Your task to perform on an android device: create a new album in the google photos Image 0: 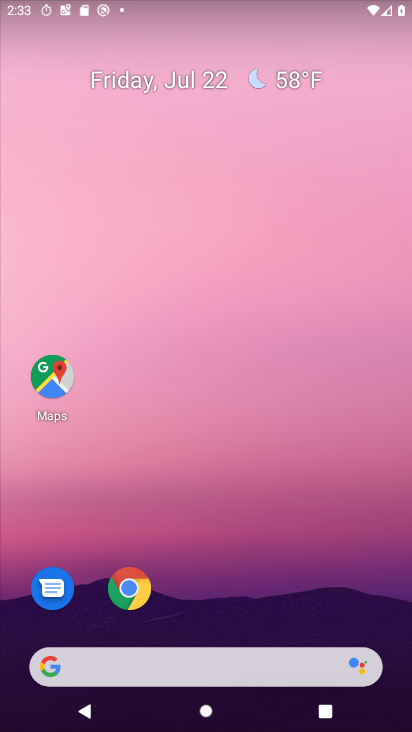
Step 0: drag from (165, 613) to (238, 10)
Your task to perform on an android device: create a new album in the google photos Image 1: 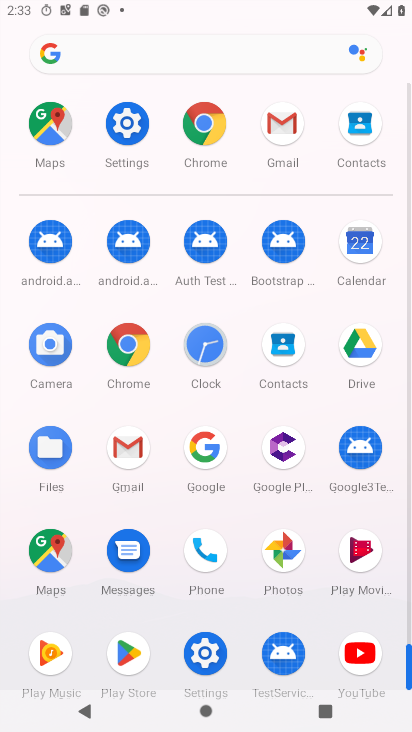
Step 1: click (287, 550)
Your task to perform on an android device: create a new album in the google photos Image 2: 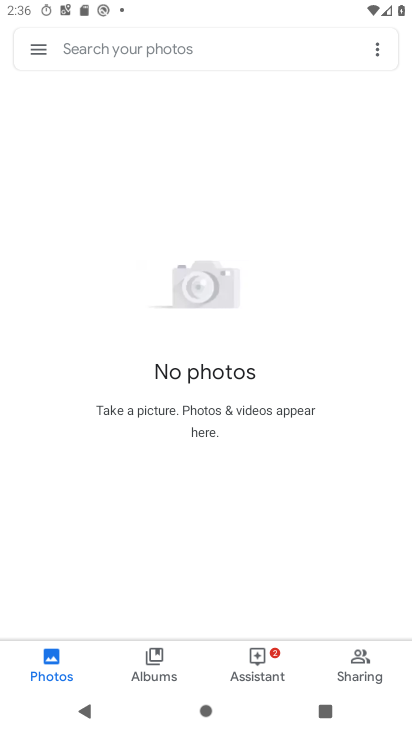
Step 2: task complete